Your task to perform on an android device: open app "YouTube Kids" (install if not already installed) and go to login screen Image 0: 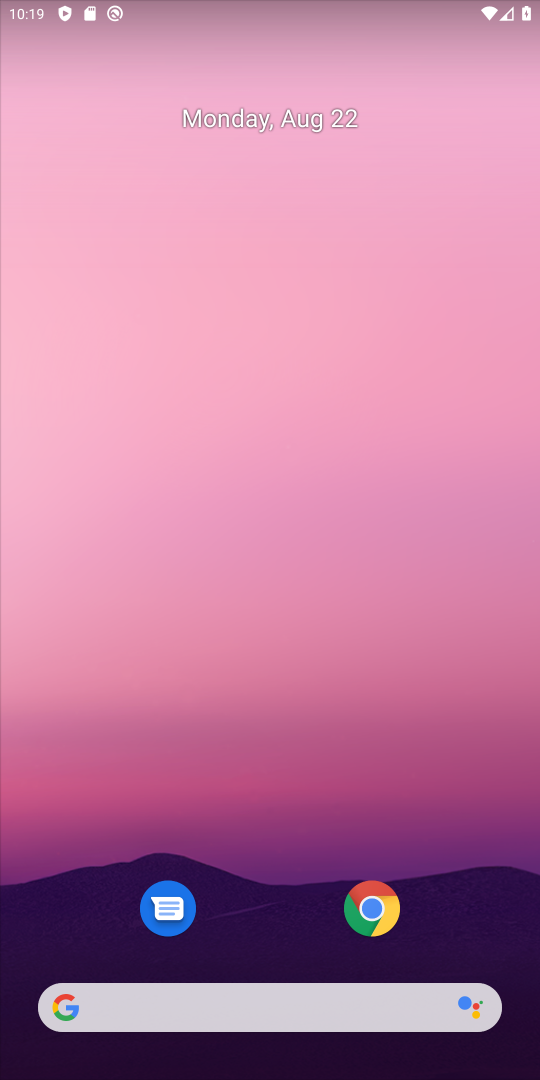
Step 0: click (415, 81)
Your task to perform on an android device: open app "YouTube Kids" (install if not already installed) and go to login screen Image 1: 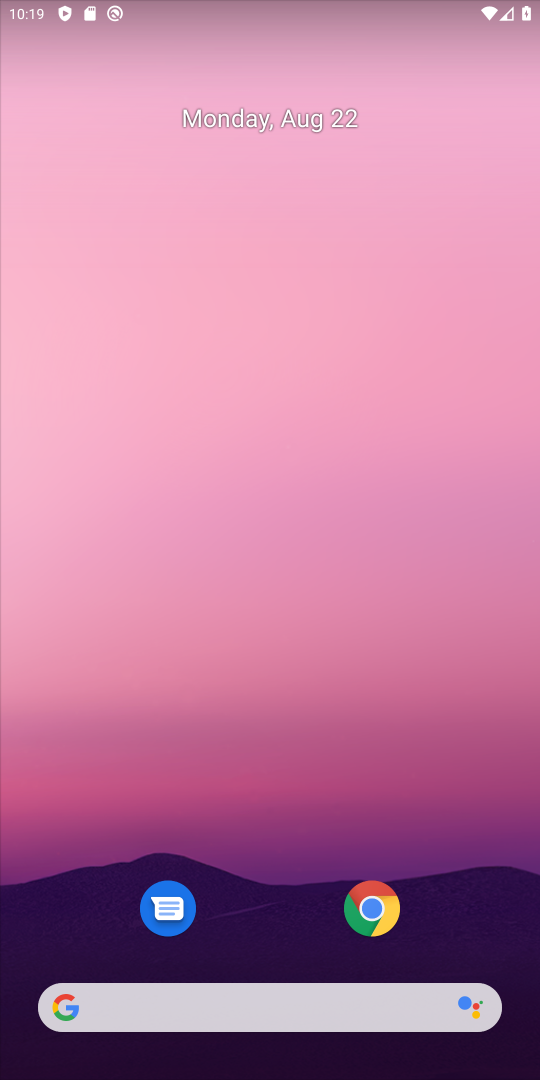
Step 1: drag from (276, 962) to (393, 45)
Your task to perform on an android device: open app "YouTube Kids" (install if not already installed) and go to login screen Image 2: 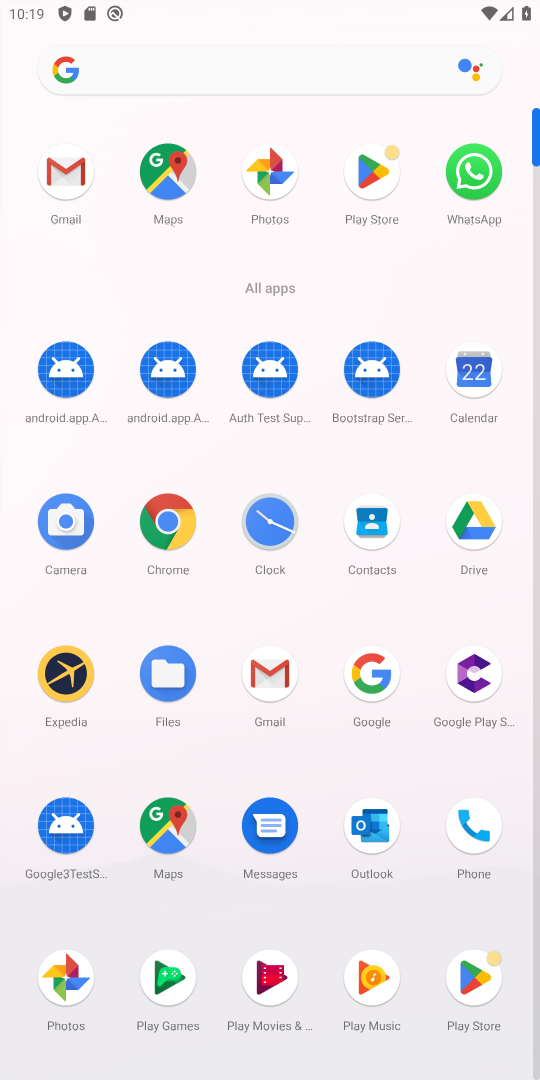
Step 2: click (371, 154)
Your task to perform on an android device: open app "YouTube Kids" (install if not already installed) and go to login screen Image 3: 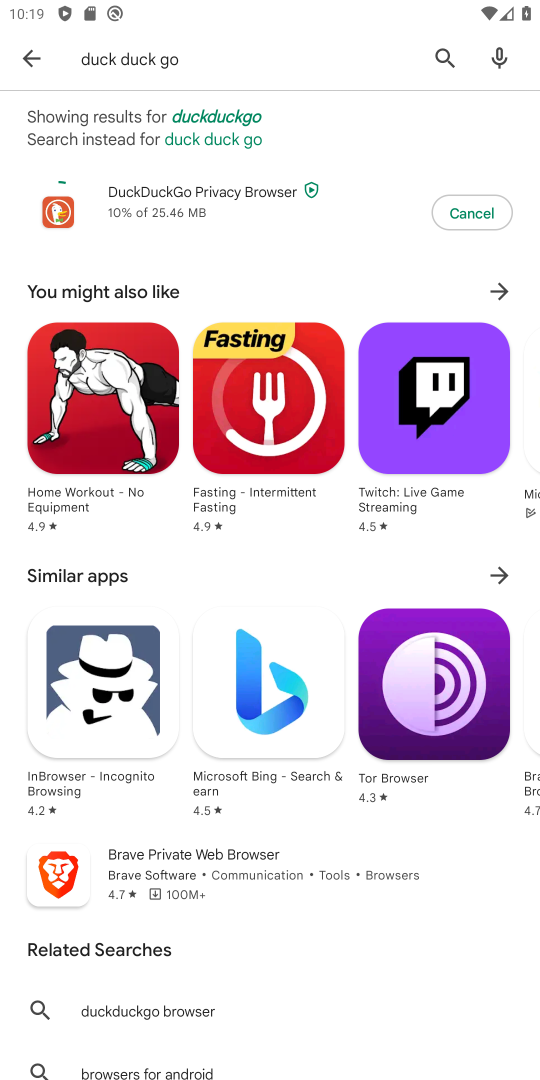
Step 3: click (437, 63)
Your task to perform on an android device: open app "YouTube Kids" (install if not already installed) and go to login screen Image 4: 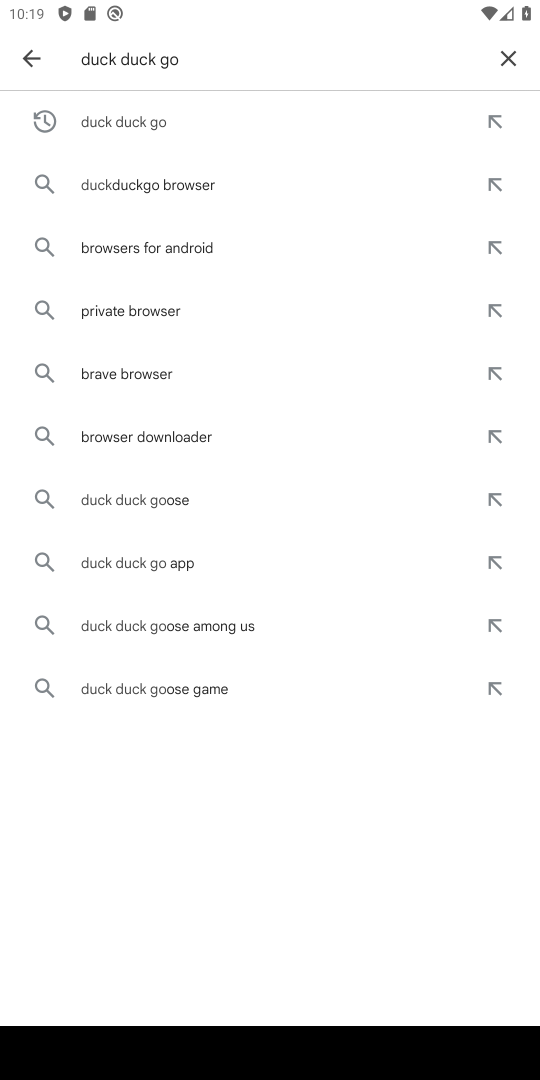
Step 4: click (533, 64)
Your task to perform on an android device: open app "YouTube Kids" (install if not already installed) and go to login screen Image 5: 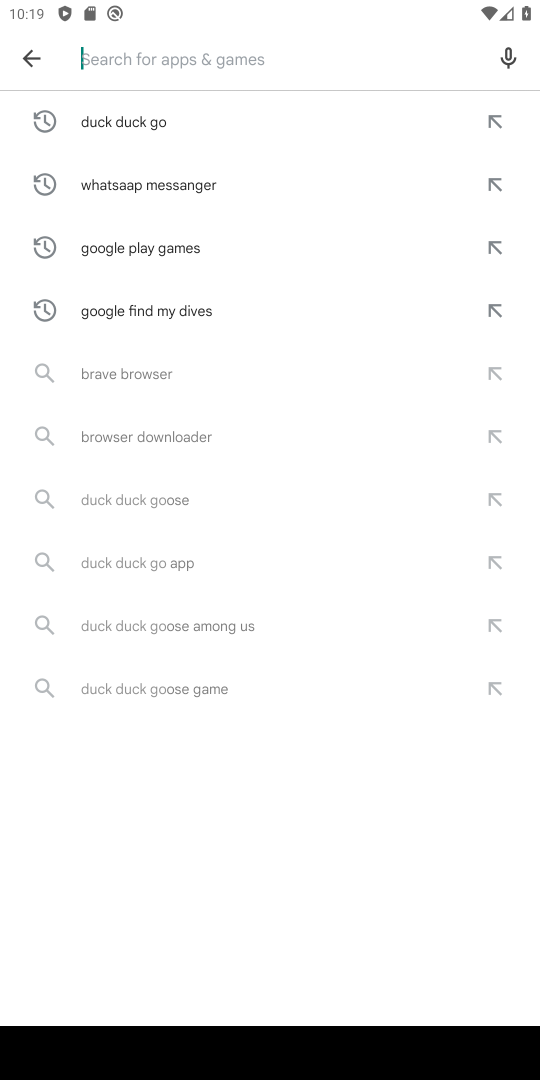
Step 5: click (526, 64)
Your task to perform on an android device: open app "YouTube Kids" (install if not already installed) and go to login screen Image 6: 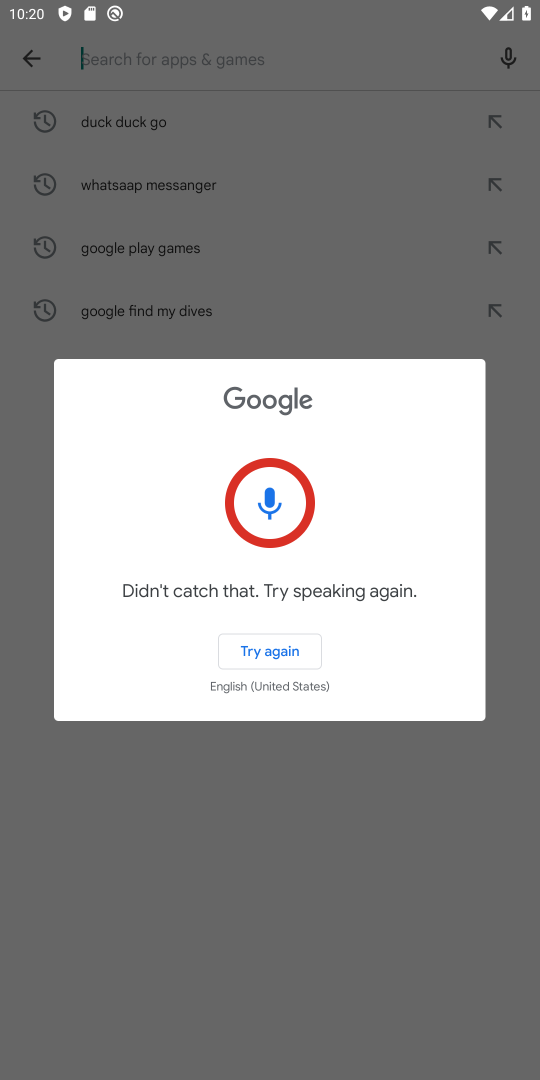
Step 6: type "youtube kid"
Your task to perform on an android device: open app "YouTube Kids" (install if not already installed) and go to login screen Image 7: 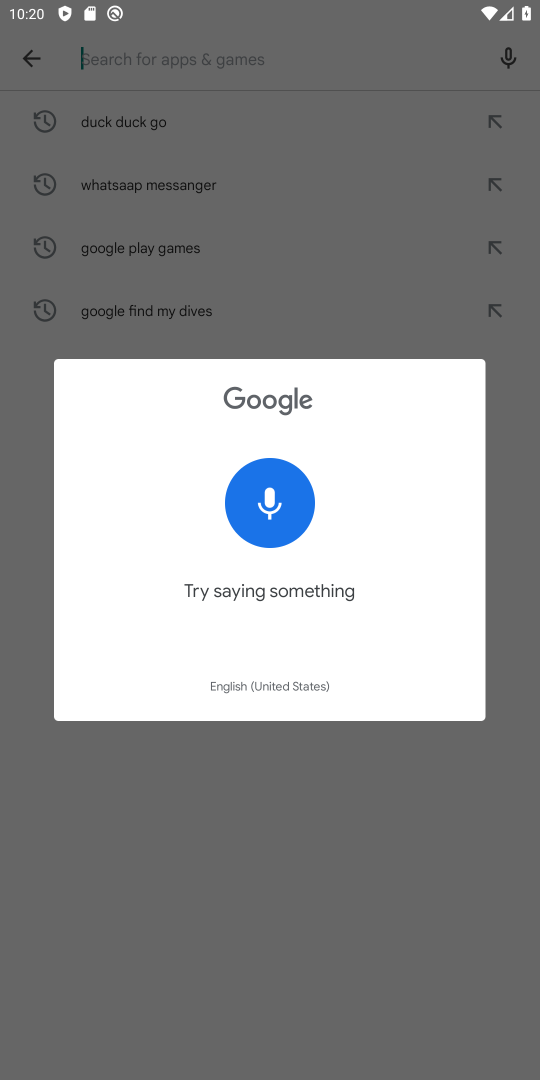
Step 7: click (223, 844)
Your task to perform on an android device: open app "YouTube Kids" (install if not already installed) and go to login screen Image 8: 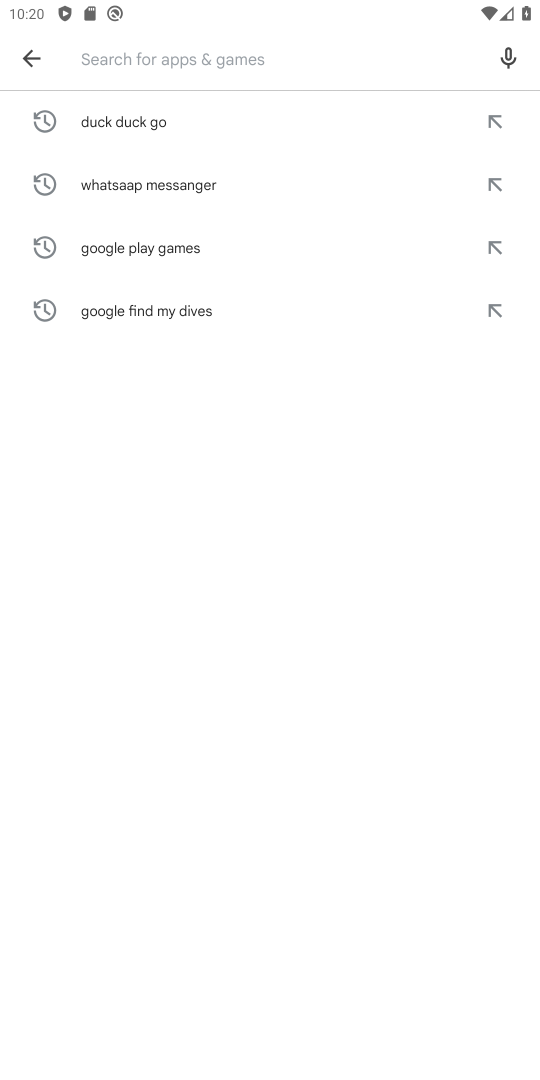
Step 8: type "youtube kids"
Your task to perform on an android device: open app "YouTube Kids" (install if not already installed) and go to login screen Image 9: 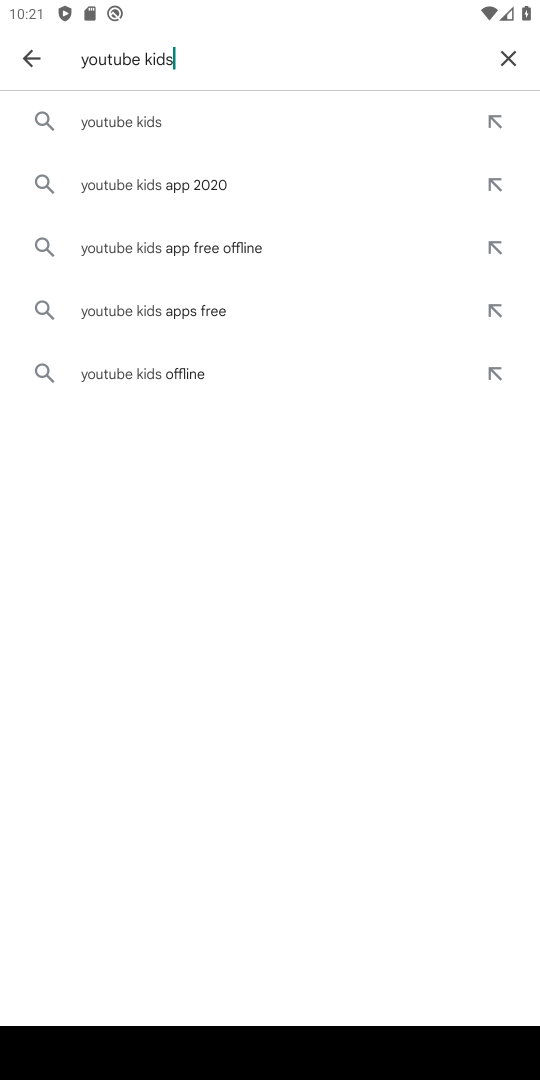
Step 9: click (213, 135)
Your task to perform on an android device: open app "YouTube Kids" (install if not already installed) and go to login screen Image 10: 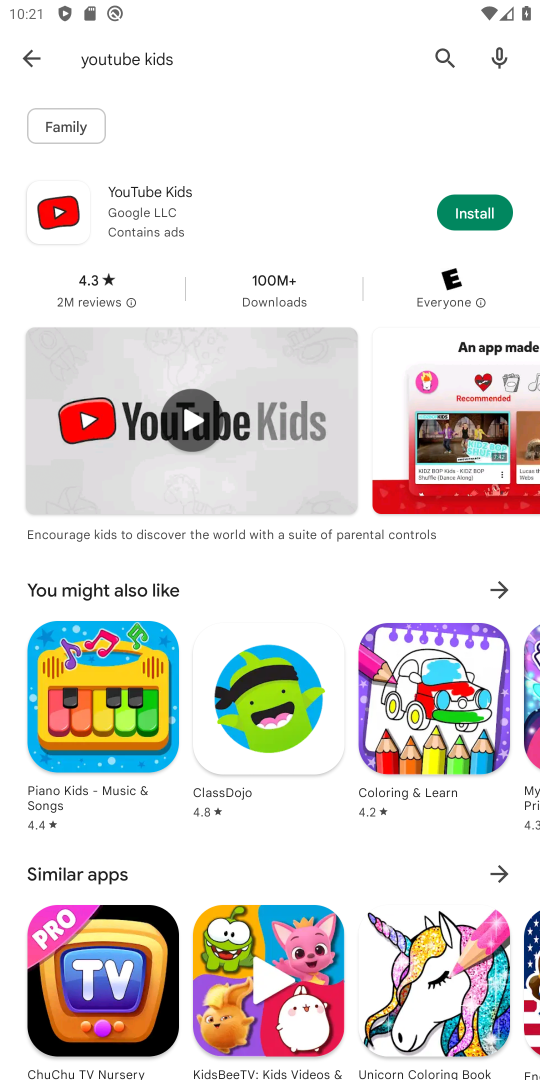
Step 10: click (457, 204)
Your task to perform on an android device: open app "YouTube Kids" (install if not already installed) and go to login screen Image 11: 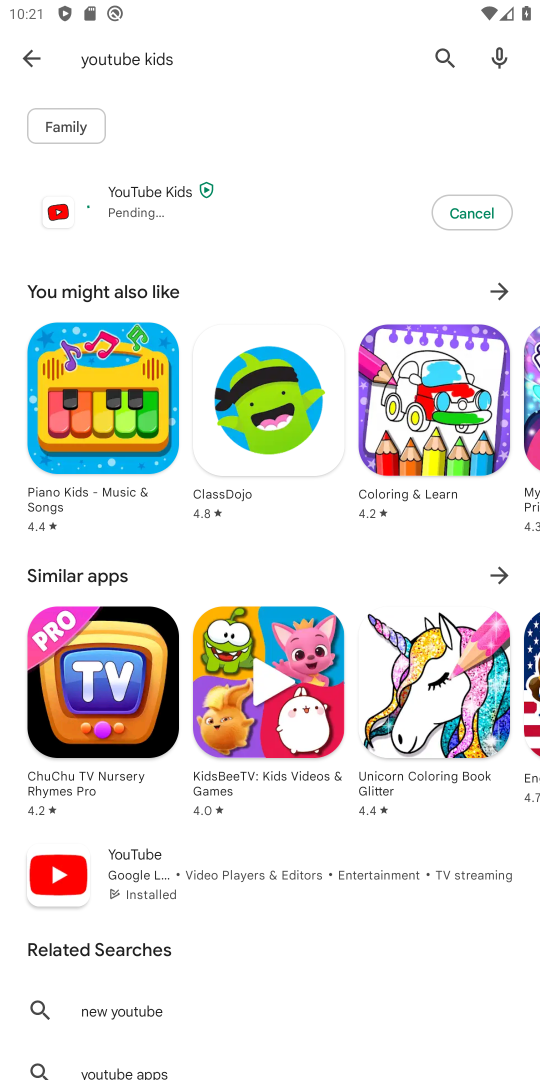
Step 11: task complete